Your task to perform on an android device: toggle airplane mode Image 0: 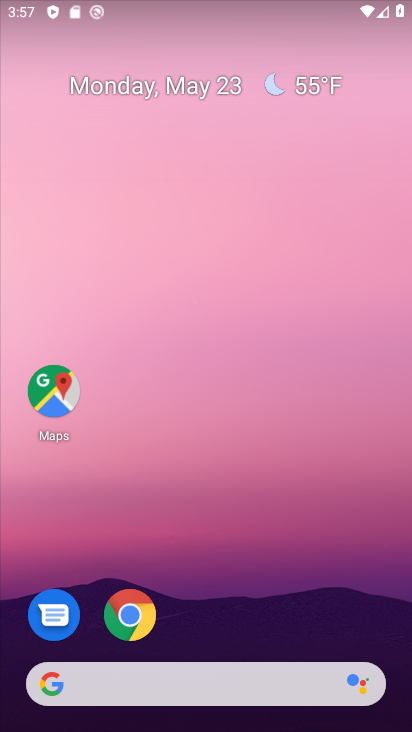
Step 0: drag from (382, 637) to (380, 275)
Your task to perform on an android device: toggle airplane mode Image 1: 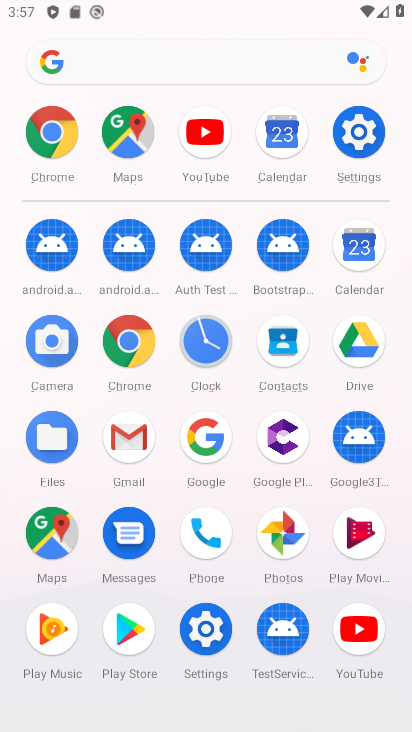
Step 1: click (217, 634)
Your task to perform on an android device: toggle airplane mode Image 2: 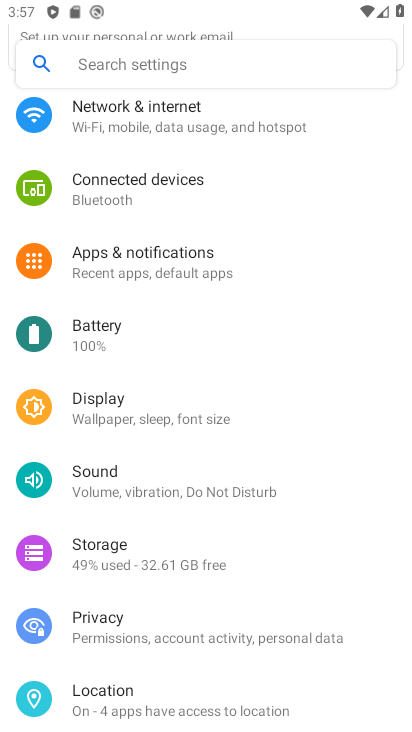
Step 2: drag from (323, 660) to (343, 576)
Your task to perform on an android device: toggle airplane mode Image 3: 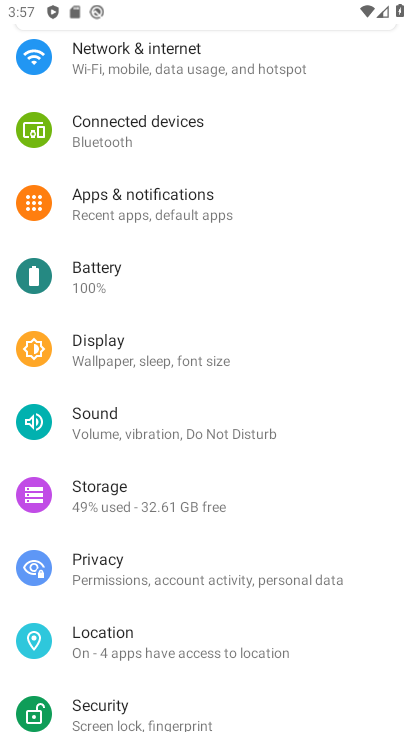
Step 3: drag from (340, 677) to (357, 556)
Your task to perform on an android device: toggle airplane mode Image 4: 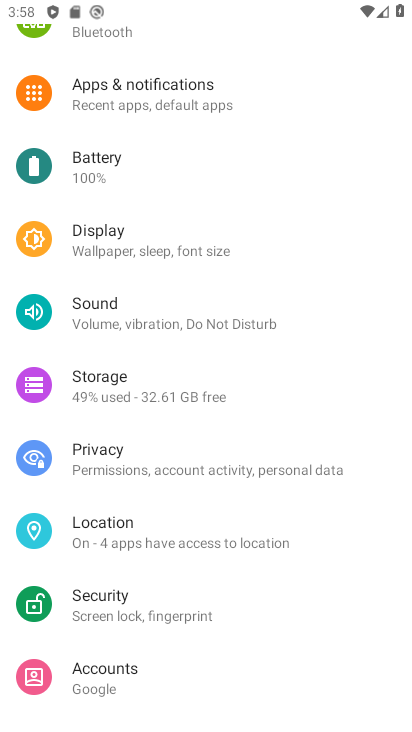
Step 4: drag from (338, 667) to (344, 555)
Your task to perform on an android device: toggle airplane mode Image 5: 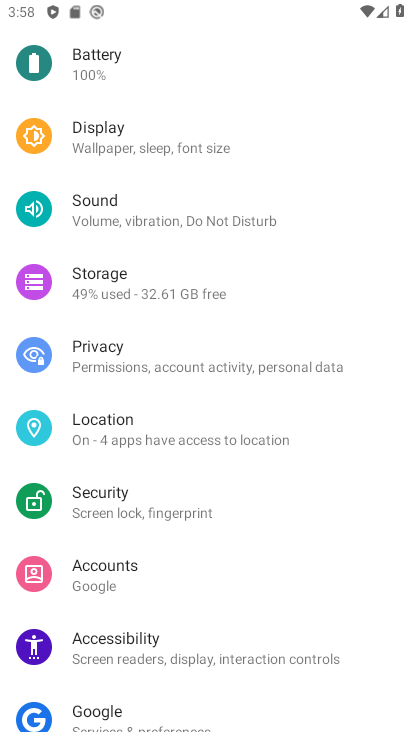
Step 5: drag from (347, 689) to (347, 564)
Your task to perform on an android device: toggle airplane mode Image 6: 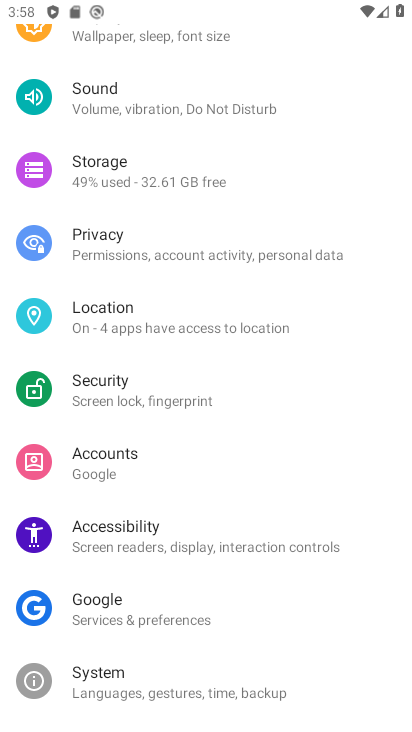
Step 6: drag from (332, 684) to (344, 523)
Your task to perform on an android device: toggle airplane mode Image 7: 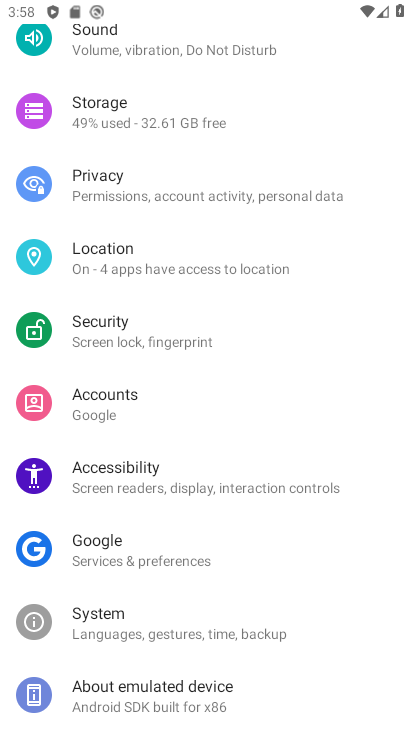
Step 7: drag from (361, 405) to (347, 534)
Your task to perform on an android device: toggle airplane mode Image 8: 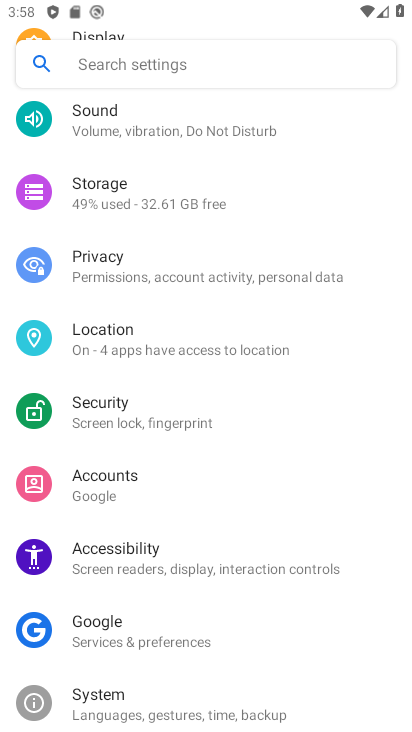
Step 8: drag from (345, 402) to (343, 490)
Your task to perform on an android device: toggle airplane mode Image 9: 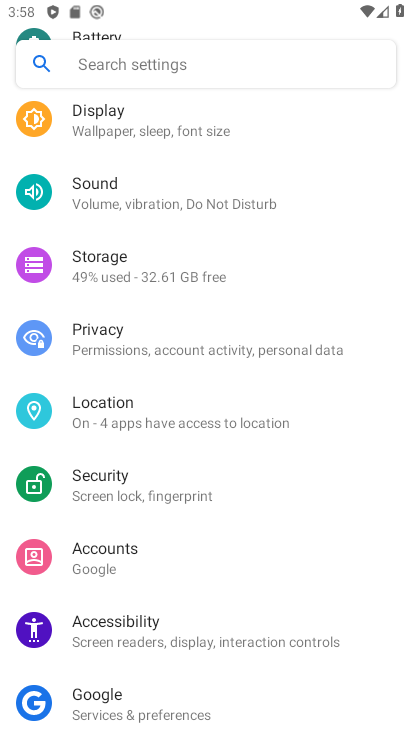
Step 9: drag from (340, 397) to (332, 504)
Your task to perform on an android device: toggle airplane mode Image 10: 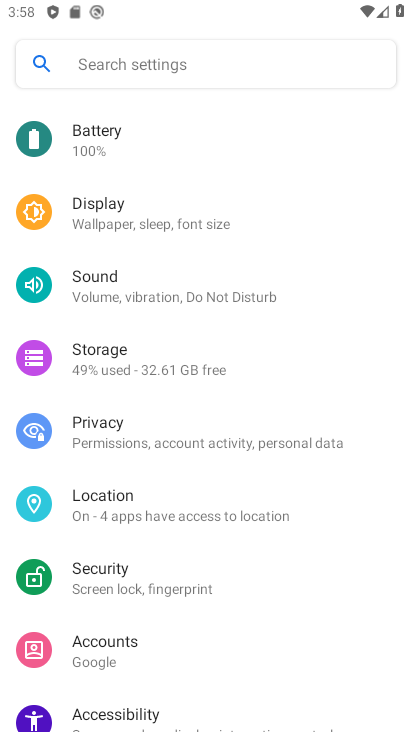
Step 10: drag from (337, 382) to (337, 500)
Your task to perform on an android device: toggle airplane mode Image 11: 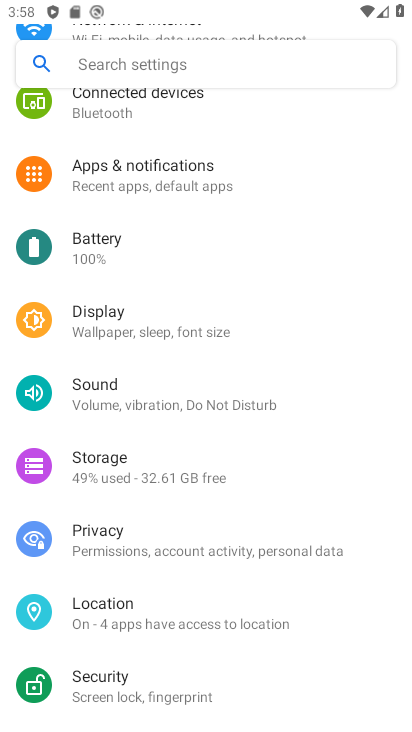
Step 11: drag from (328, 333) to (320, 421)
Your task to perform on an android device: toggle airplane mode Image 12: 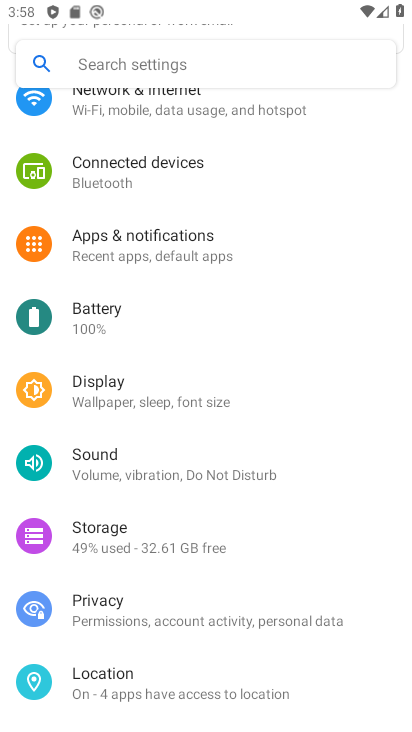
Step 12: drag from (324, 334) to (326, 456)
Your task to perform on an android device: toggle airplane mode Image 13: 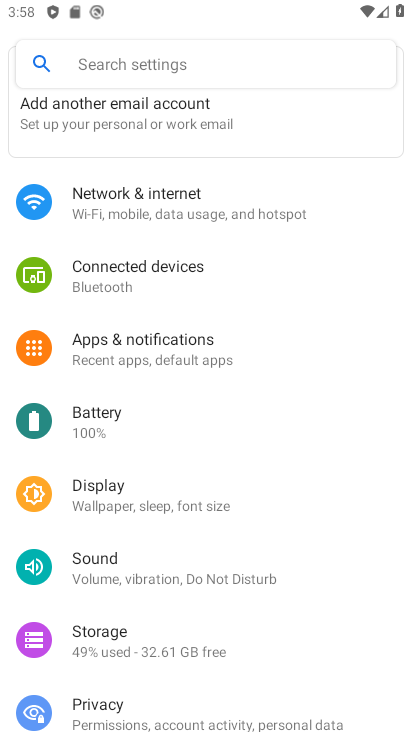
Step 13: drag from (324, 330) to (313, 460)
Your task to perform on an android device: toggle airplane mode Image 14: 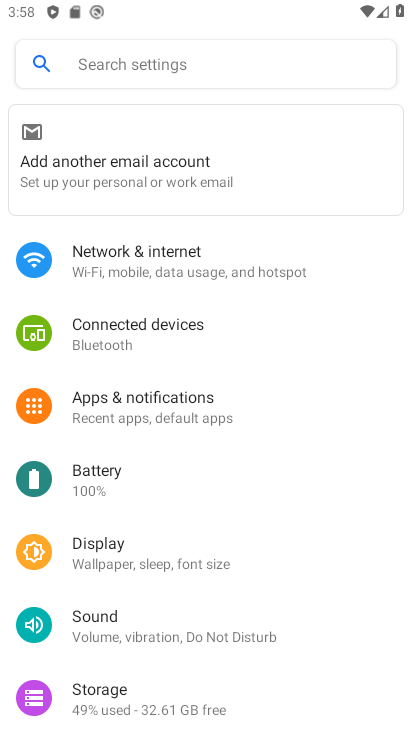
Step 14: click (294, 282)
Your task to perform on an android device: toggle airplane mode Image 15: 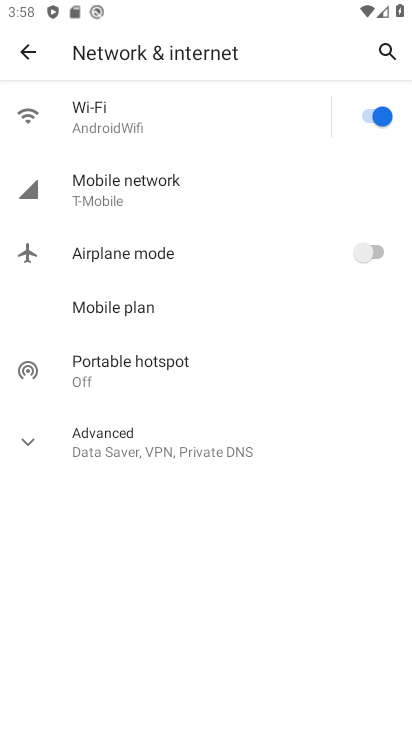
Step 15: click (385, 246)
Your task to perform on an android device: toggle airplane mode Image 16: 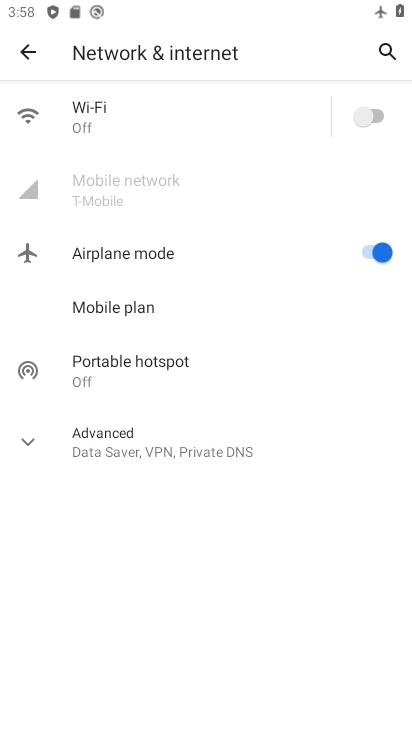
Step 16: task complete